Your task to perform on an android device: set default search engine in the chrome app Image 0: 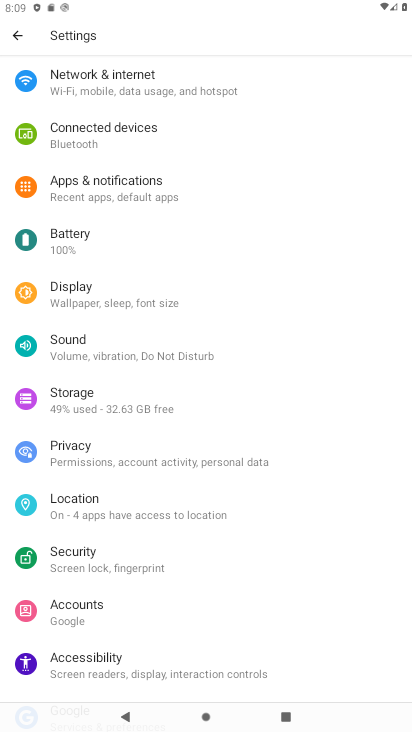
Step 0: press home button
Your task to perform on an android device: set default search engine in the chrome app Image 1: 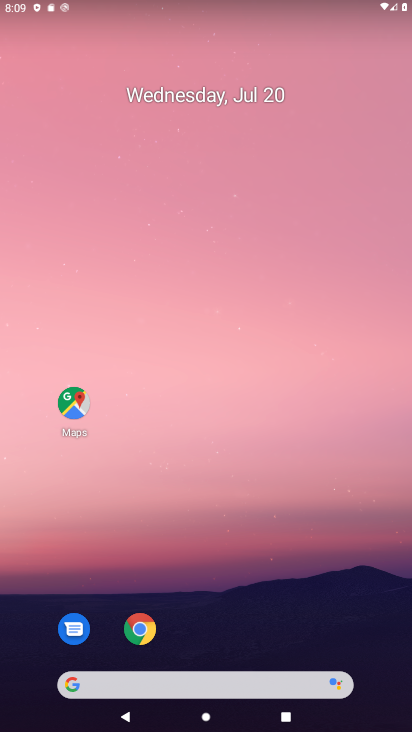
Step 1: click (133, 627)
Your task to perform on an android device: set default search engine in the chrome app Image 2: 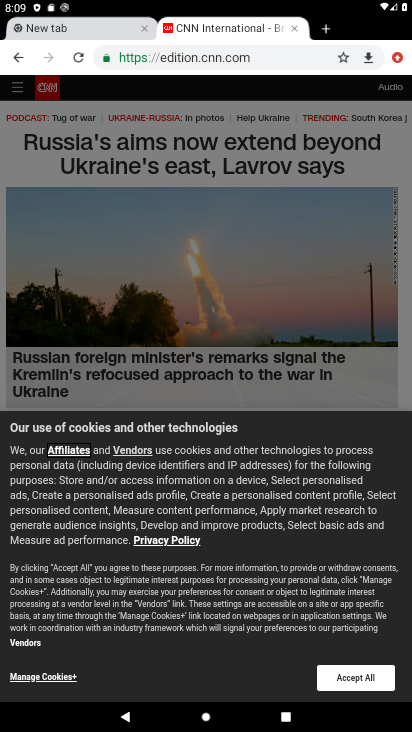
Step 2: click (394, 56)
Your task to perform on an android device: set default search engine in the chrome app Image 3: 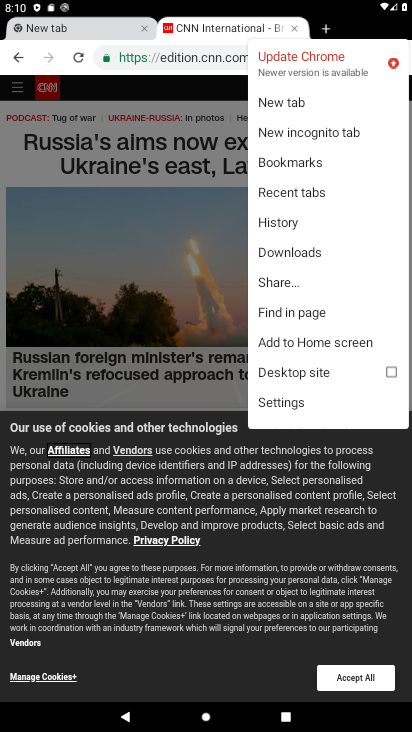
Step 3: click (318, 406)
Your task to perform on an android device: set default search engine in the chrome app Image 4: 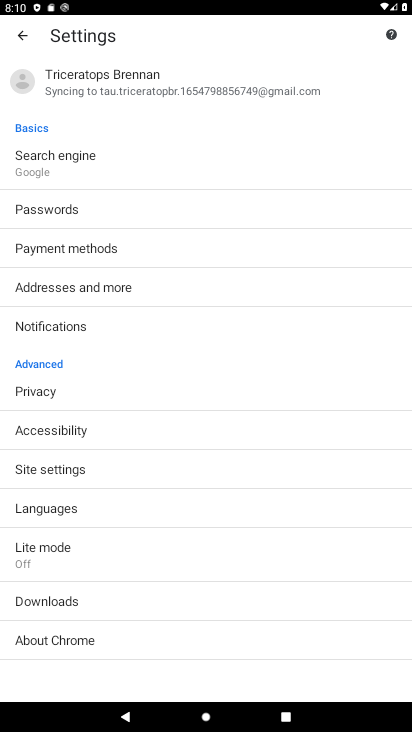
Step 4: click (55, 163)
Your task to perform on an android device: set default search engine in the chrome app Image 5: 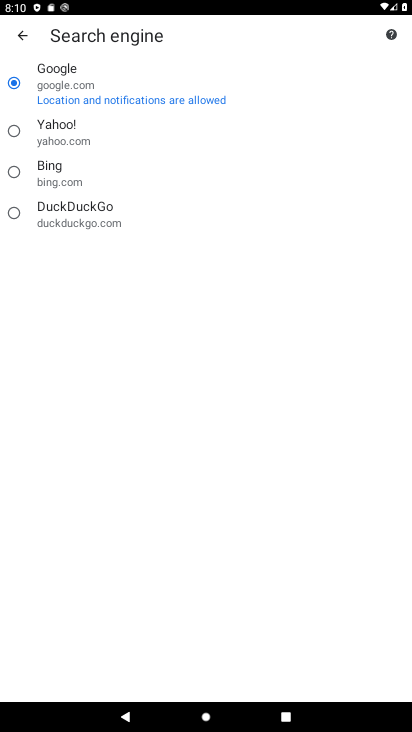
Step 5: task complete